Your task to perform on an android device: Do I have any events tomorrow? Image 0: 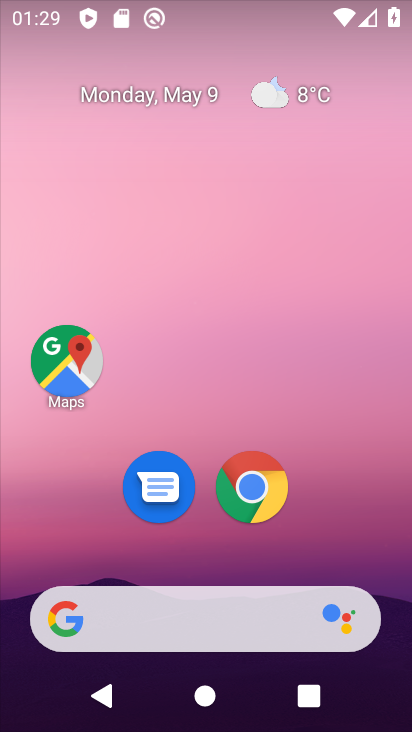
Step 0: drag from (361, 575) to (260, 34)
Your task to perform on an android device: Do I have any events tomorrow? Image 1: 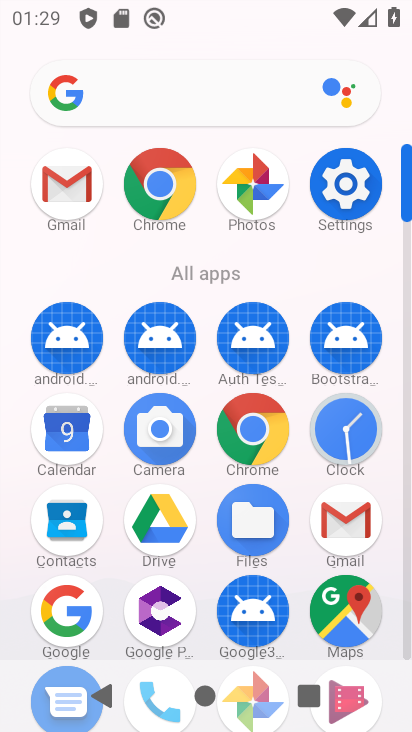
Step 1: click (73, 449)
Your task to perform on an android device: Do I have any events tomorrow? Image 2: 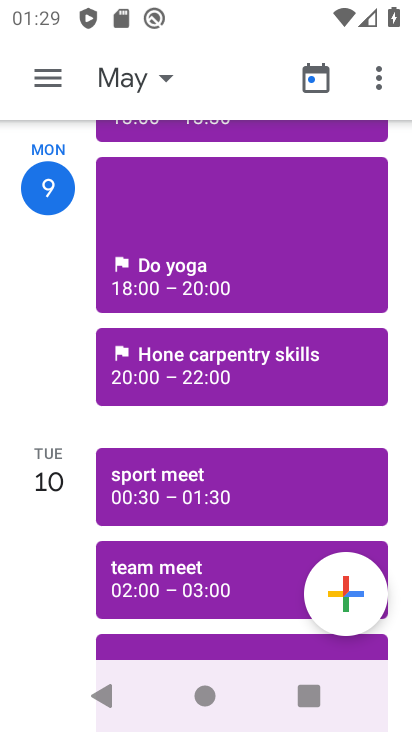
Step 2: task complete